Your task to perform on an android device: Open accessibility settings Image 0: 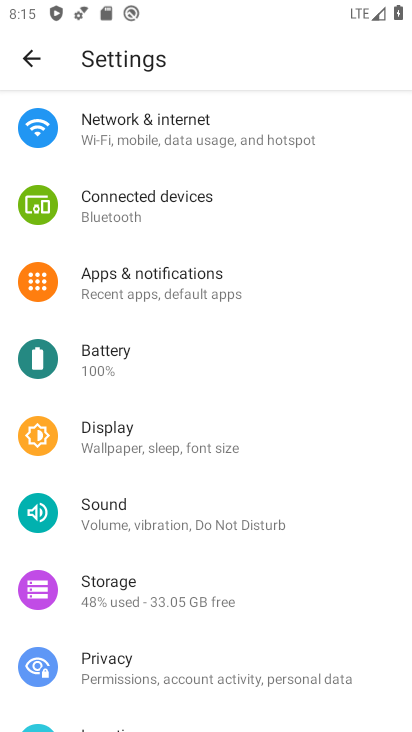
Step 0: drag from (275, 464) to (291, 387)
Your task to perform on an android device: Open accessibility settings Image 1: 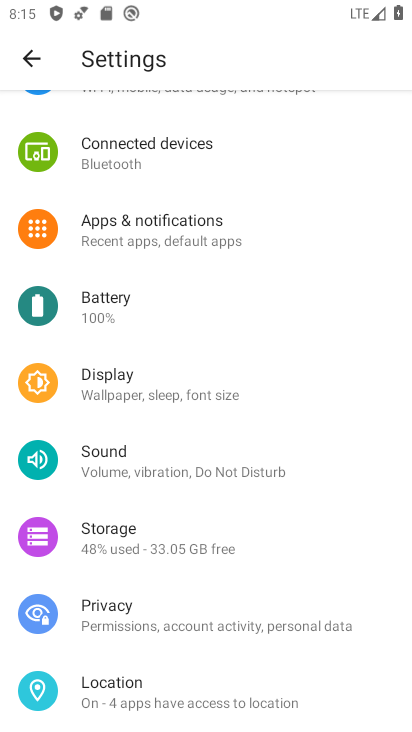
Step 1: drag from (222, 530) to (254, 419)
Your task to perform on an android device: Open accessibility settings Image 2: 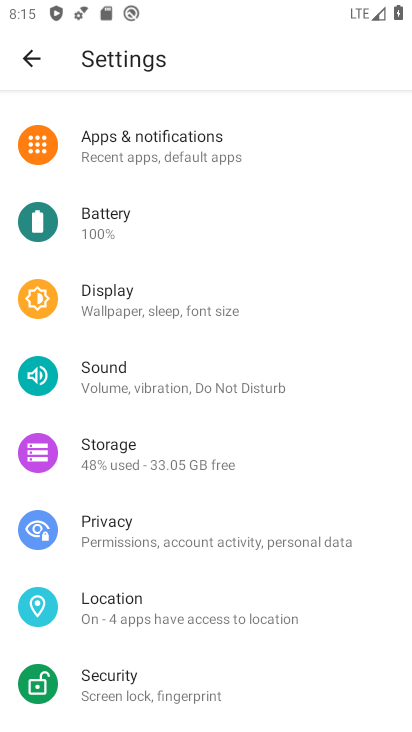
Step 2: drag from (169, 585) to (224, 453)
Your task to perform on an android device: Open accessibility settings Image 3: 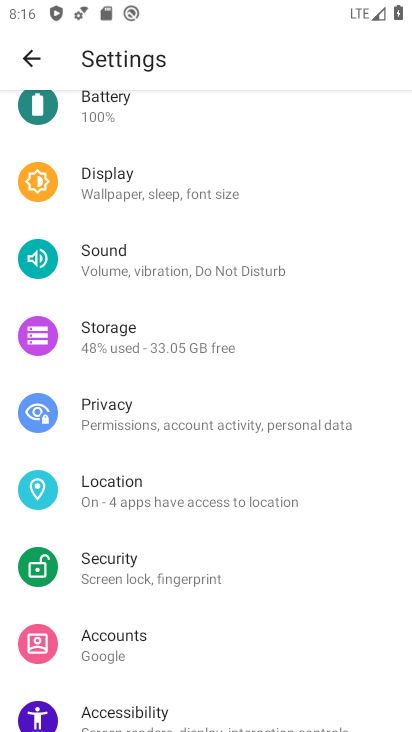
Step 3: drag from (168, 612) to (244, 471)
Your task to perform on an android device: Open accessibility settings Image 4: 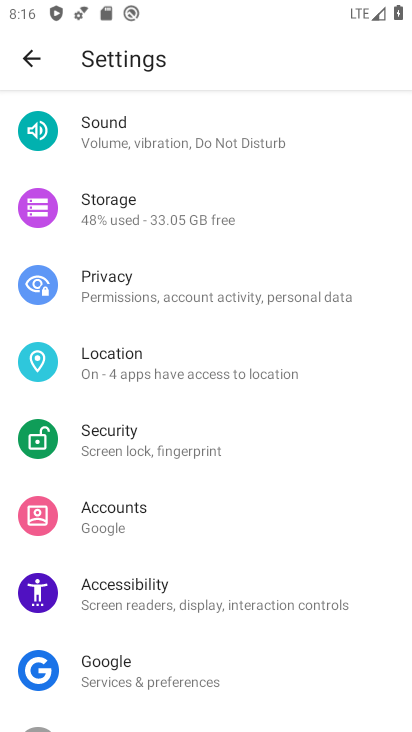
Step 4: click (146, 584)
Your task to perform on an android device: Open accessibility settings Image 5: 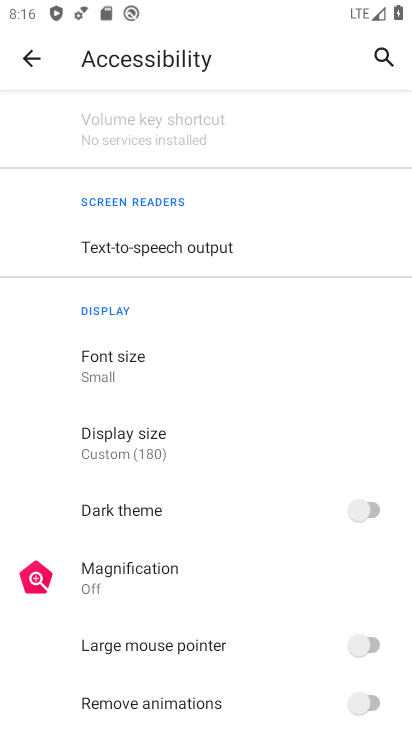
Step 5: task complete